Your task to perform on an android device: show emergency info Image 0: 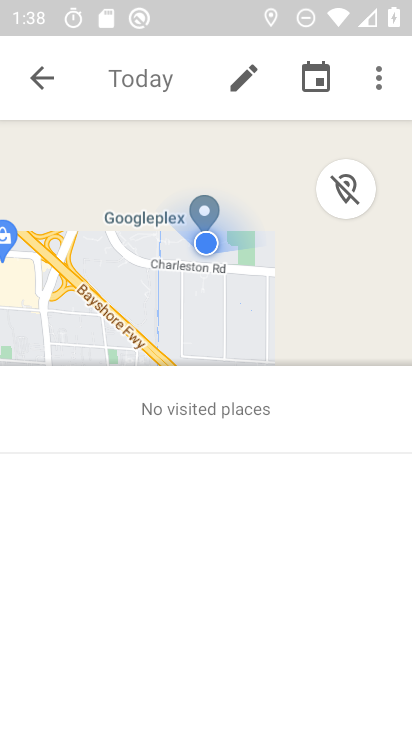
Step 0: press home button
Your task to perform on an android device: show emergency info Image 1: 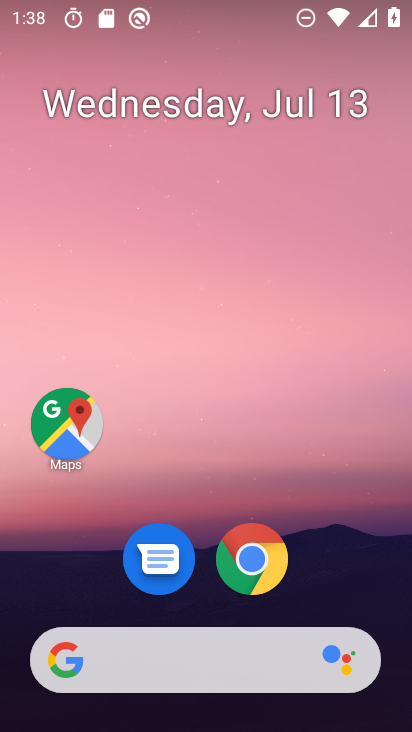
Step 1: drag from (218, 648) to (313, 261)
Your task to perform on an android device: show emergency info Image 2: 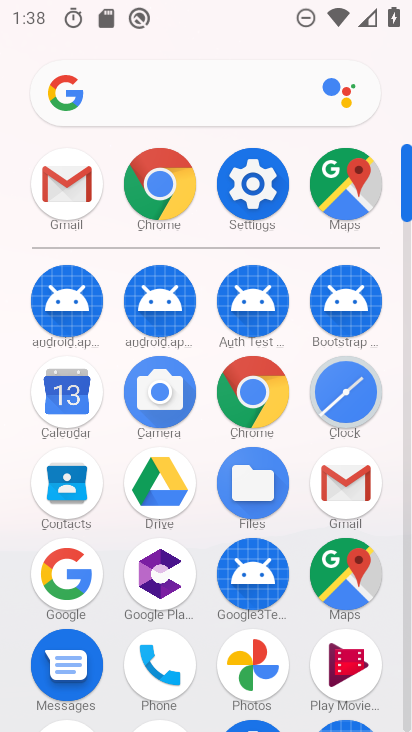
Step 2: click (266, 188)
Your task to perform on an android device: show emergency info Image 3: 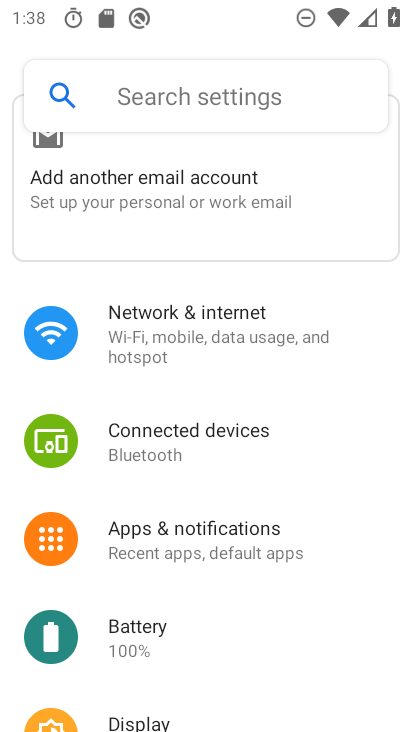
Step 3: drag from (257, 534) to (305, 304)
Your task to perform on an android device: show emergency info Image 4: 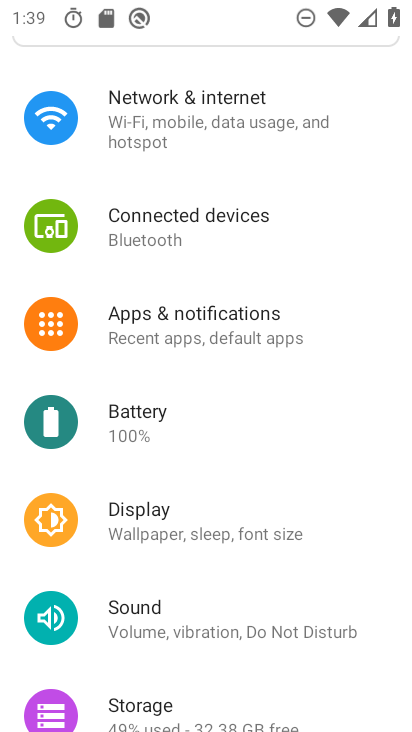
Step 4: drag from (252, 546) to (328, 266)
Your task to perform on an android device: show emergency info Image 5: 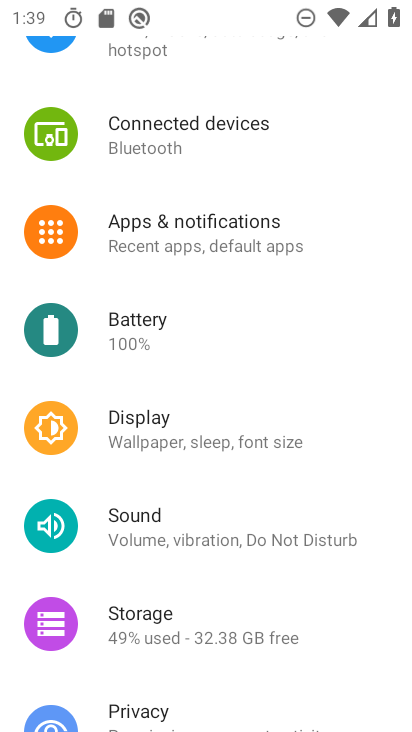
Step 5: drag from (249, 540) to (319, 286)
Your task to perform on an android device: show emergency info Image 6: 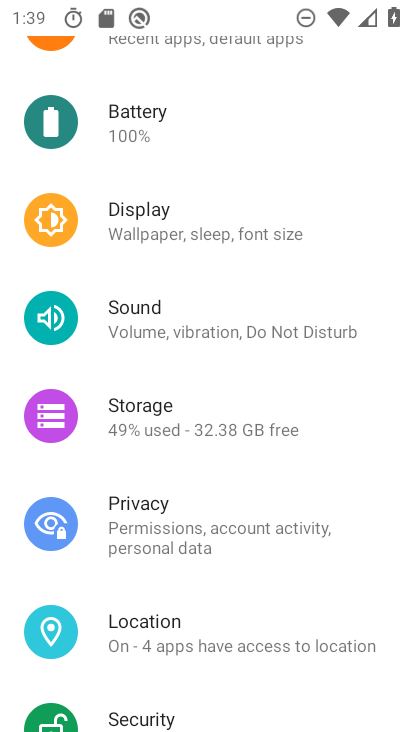
Step 6: drag from (182, 605) to (246, 227)
Your task to perform on an android device: show emergency info Image 7: 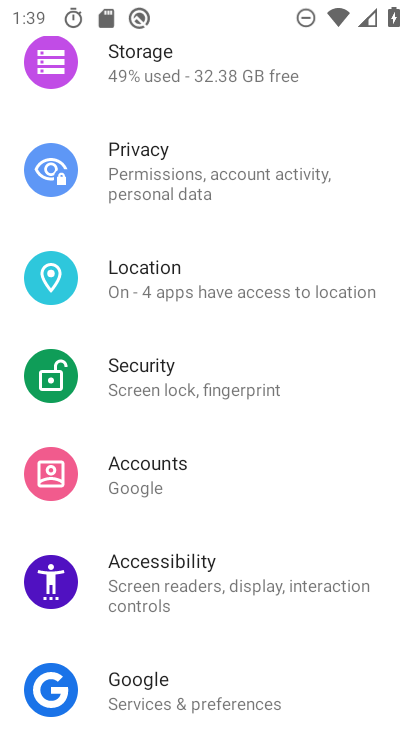
Step 7: drag from (199, 530) to (253, 153)
Your task to perform on an android device: show emergency info Image 8: 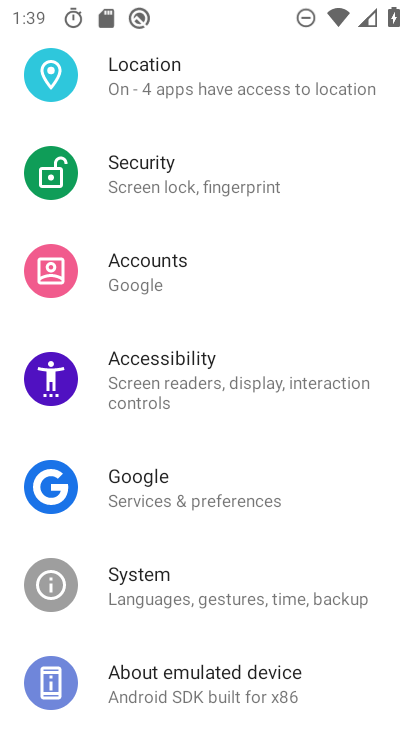
Step 8: click (148, 667)
Your task to perform on an android device: show emergency info Image 9: 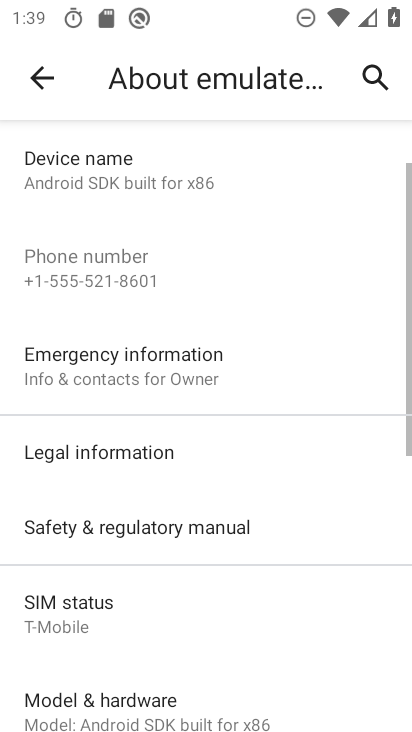
Step 9: click (197, 375)
Your task to perform on an android device: show emergency info Image 10: 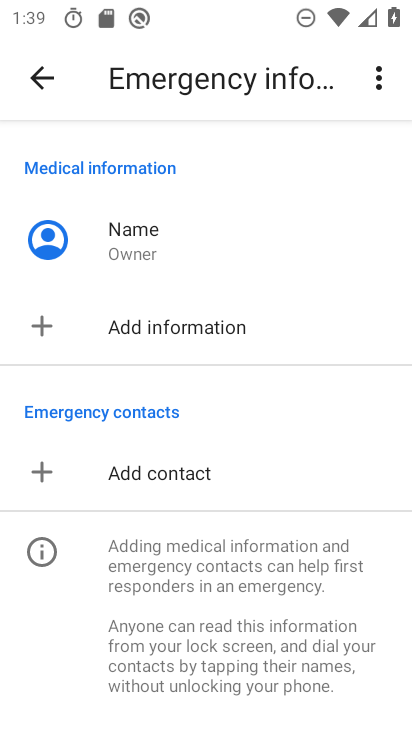
Step 10: task complete